Your task to perform on an android device: open a new tab in the chrome app Image 0: 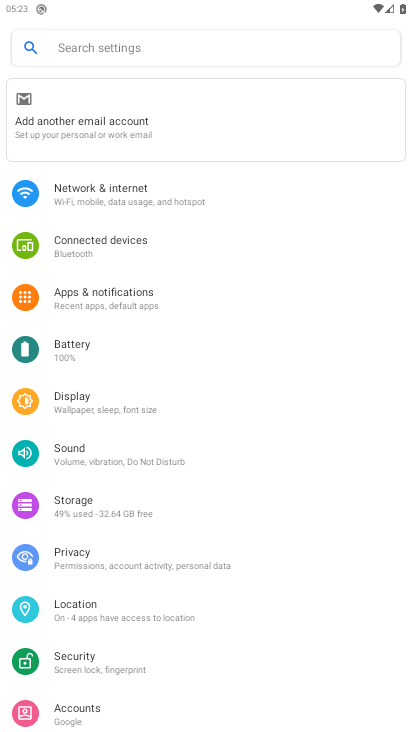
Step 0: press home button
Your task to perform on an android device: open a new tab in the chrome app Image 1: 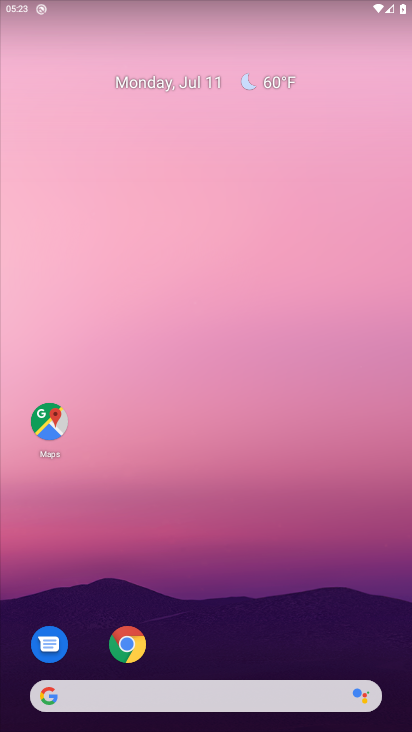
Step 1: click (125, 653)
Your task to perform on an android device: open a new tab in the chrome app Image 2: 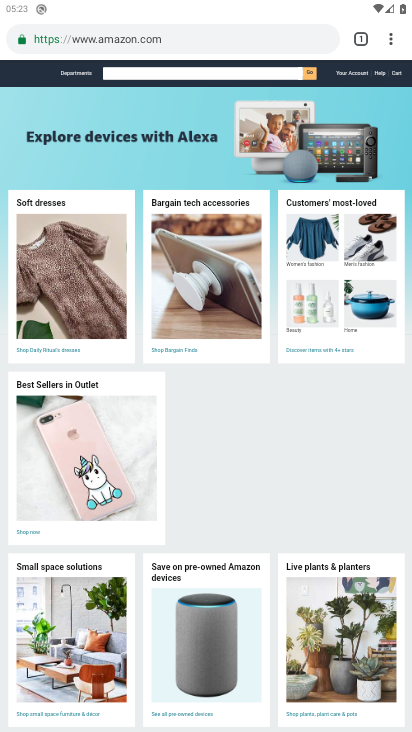
Step 2: click (390, 35)
Your task to perform on an android device: open a new tab in the chrome app Image 3: 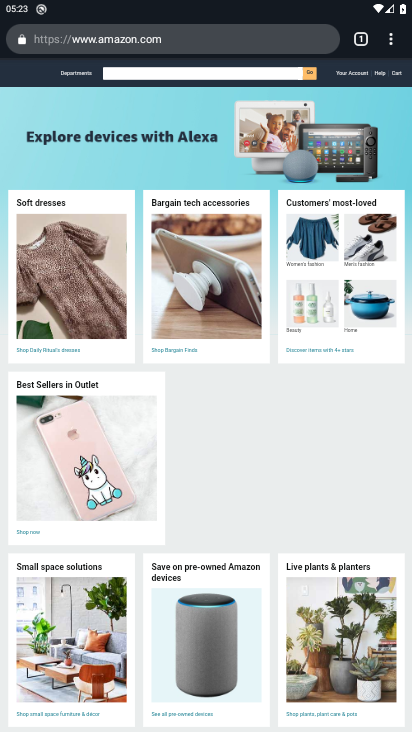
Step 3: click (385, 37)
Your task to perform on an android device: open a new tab in the chrome app Image 4: 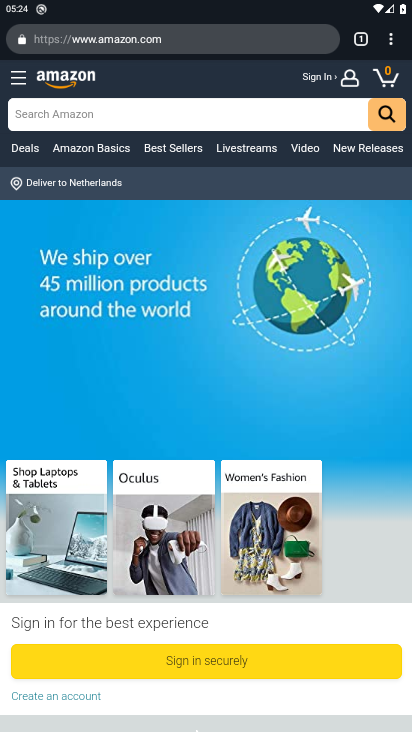
Step 4: click (389, 43)
Your task to perform on an android device: open a new tab in the chrome app Image 5: 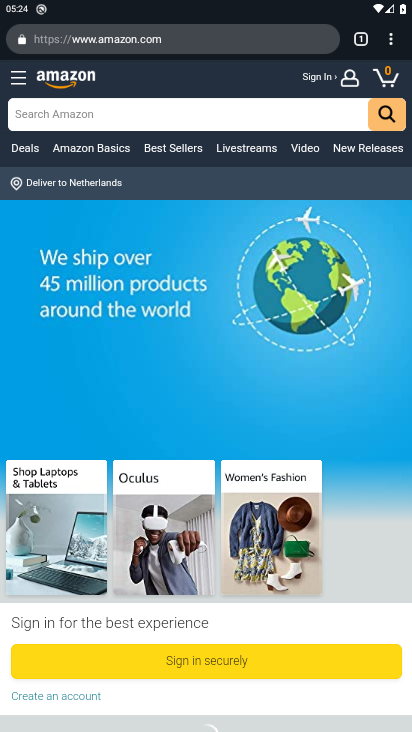
Step 5: click (394, 37)
Your task to perform on an android device: open a new tab in the chrome app Image 6: 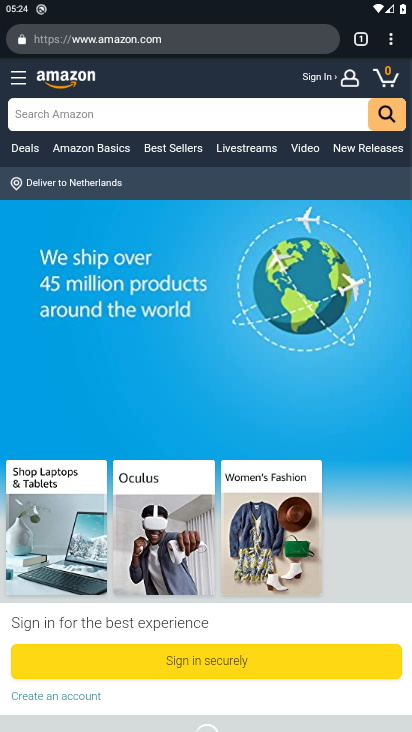
Step 6: click (394, 40)
Your task to perform on an android device: open a new tab in the chrome app Image 7: 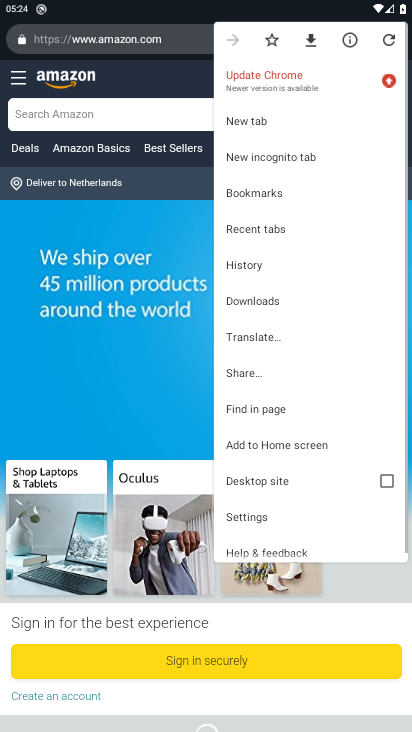
Step 7: click (261, 118)
Your task to perform on an android device: open a new tab in the chrome app Image 8: 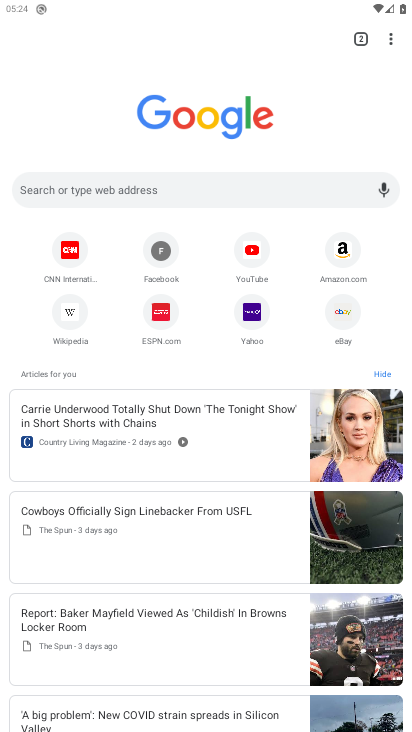
Step 8: task complete